Your task to perform on an android device: make emails show in primary in the gmail app Image 0: 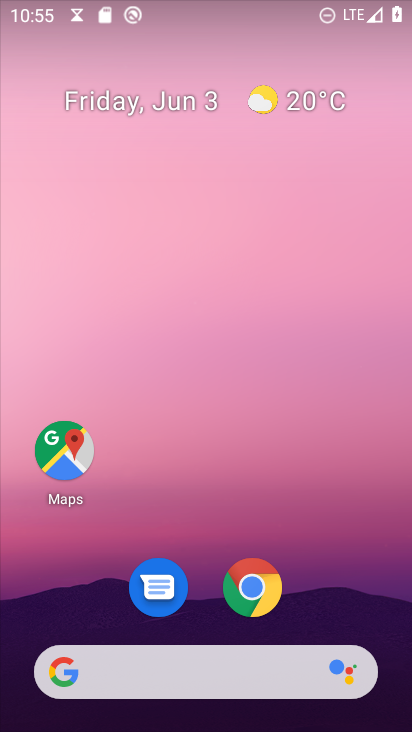
Step 0: drag from (272, 193) to (201, 57)
Your task to perform on an android device: make emails show in primary in the gmail app Image 1: 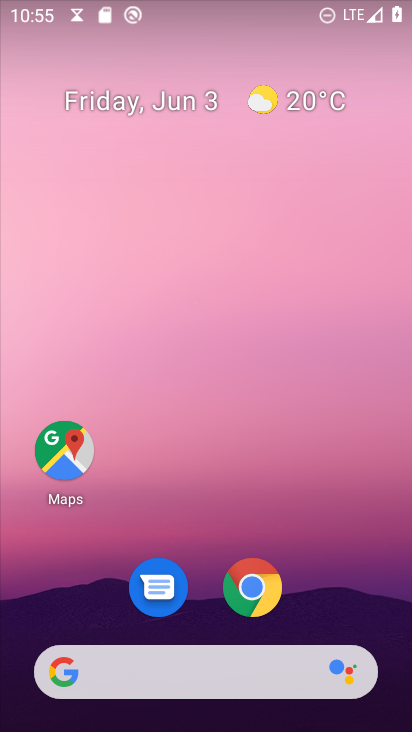
Step 1: drag from (349, 594) to (187, 3)
Your task to perform on an android device: make emails show in primary in the gmail app Image 2: 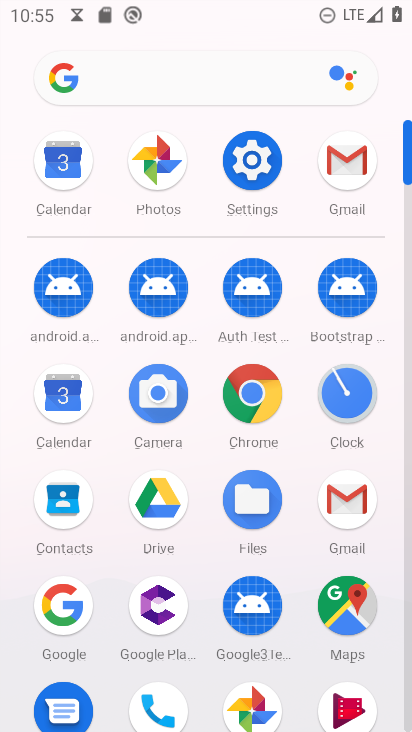
Step 2: click (358, 473)
Your task to perform on an android device: make emails show in primary in the gmail app Image 3: 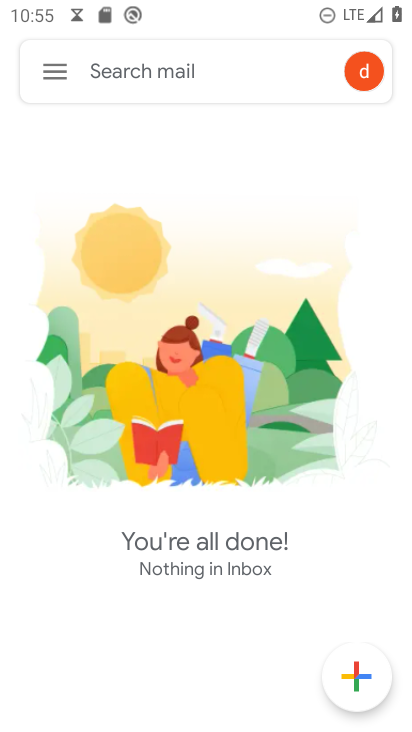
Step 3: click (69, 80)
Your task to perform on an android device: make emails show in primary in the gmail app Image 4: 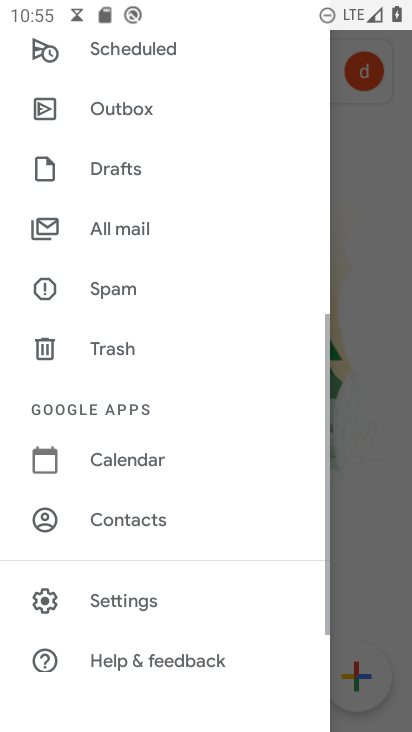
Step 4: task complete